Your task to perform on an android device: Set the phone to "Do not disturb". Image 0: 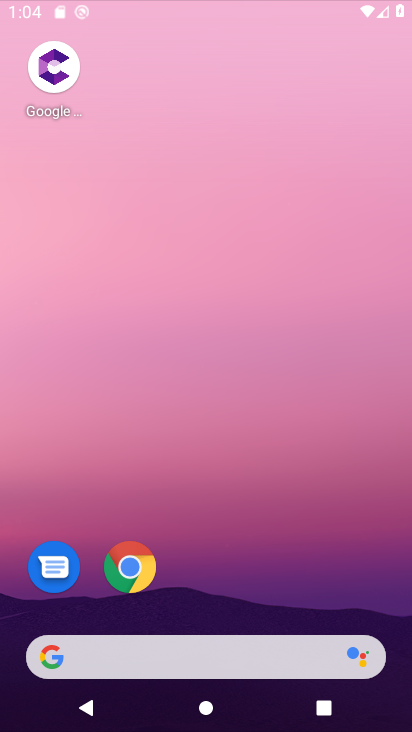
Step 0: drag from (350, 344) to (354, 92)
Your task to perform on an android device: Set the phone to "Do not disturb". Image 1: 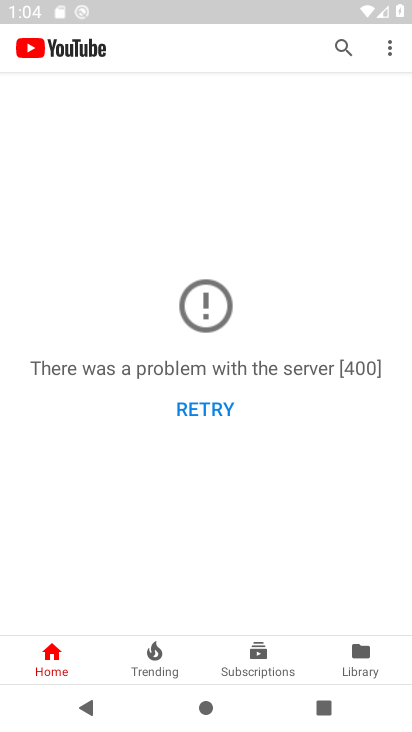
Step 1: press home button
Your task to perform on an android device: Set the phone to "Do not disturb". Image 2: 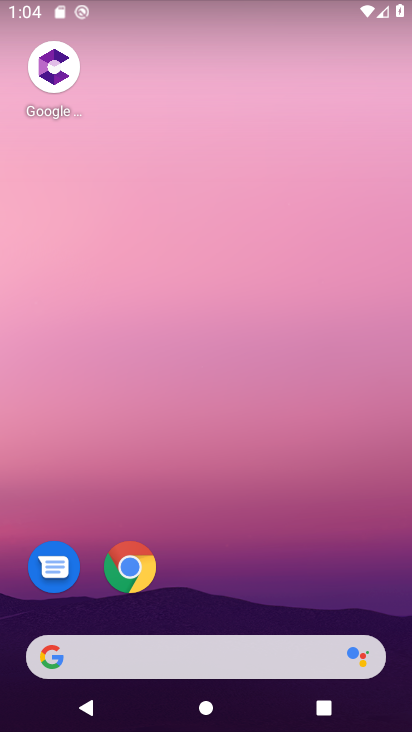
Step 2: drag from (259, 13) to (160, 720)
Your task to perform on an android device: Set the phone to "Do not disturb". Image 3: 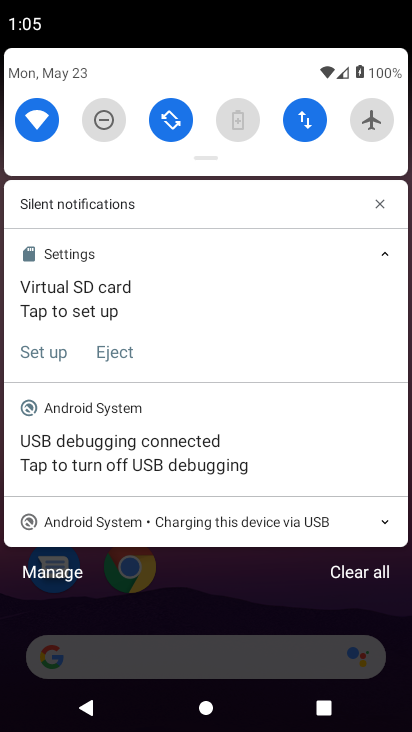
Step 3: click (99, 123)
Your task to perform on an android device: Set the phone to "Do not disturb". Image 4: 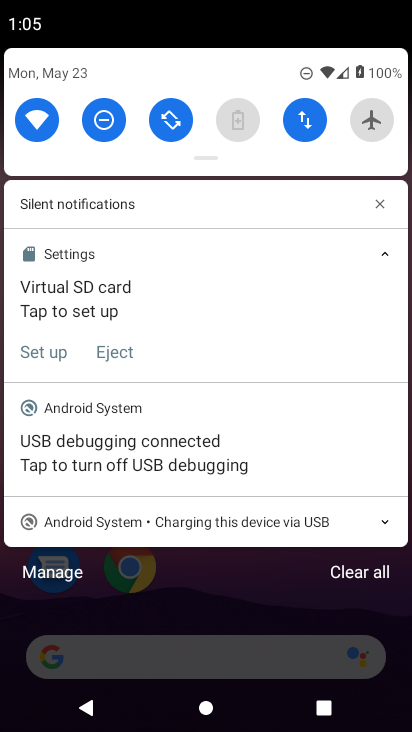
Step 4: task complete